Your task to perform on an android device: Open sound settings Image 0: 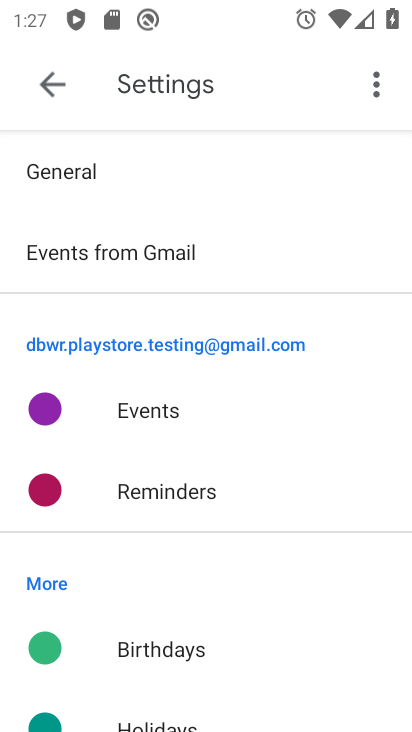
Step 0: press home button
Your task to perform on an android device: Open sound settings Image 1: 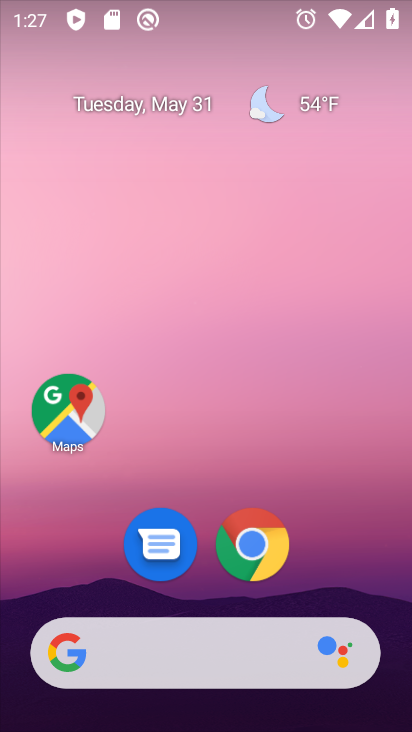
Step 1: drag from (311, 566) to (269, 42)
Your task to perform on an android device: Open sound settings Image 2: 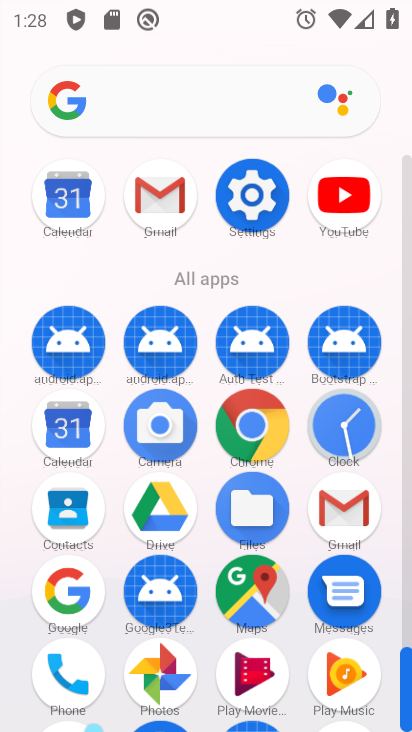
Step 2: click (245, 192)
Your task to perform on an android device: Open sound settings Image 3: 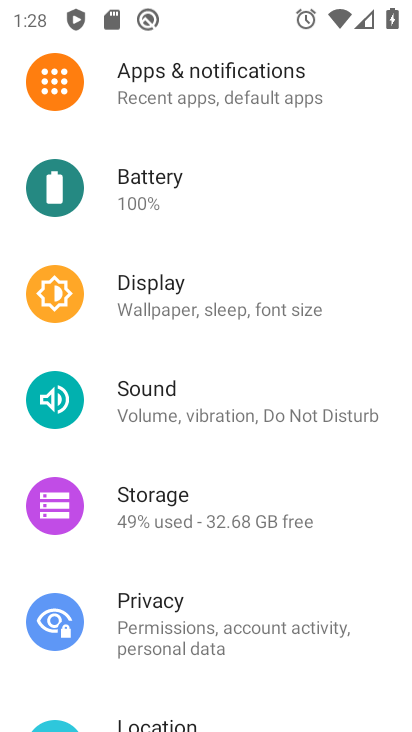
Step 3: click (154, 388)
Your task to perform on an android device: Open sound settings Image 4: 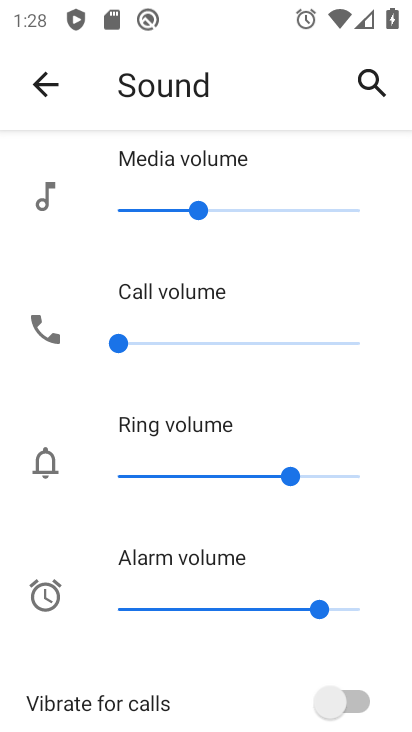
Step 4: task complete